Your task to perform on an android device: change the clock display to show seconds Image 0: 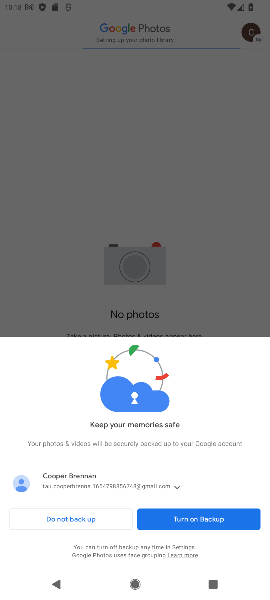
Step 0: press home button
Your task to perform on an android device: change the clock display to show seconds Image 1: 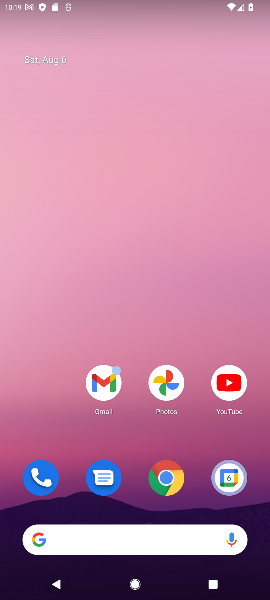
Step 1: drag from (144, 497) to (179, 30)
Your task to perform on an android device: change the clock display to show seconds Image 2: 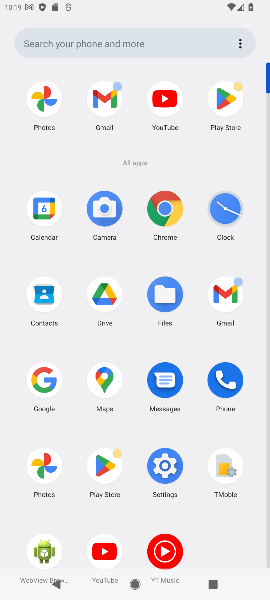
Step 2: click (223, 211)
Your task to perform on an android device: change the clock display to show seconds Image 3: 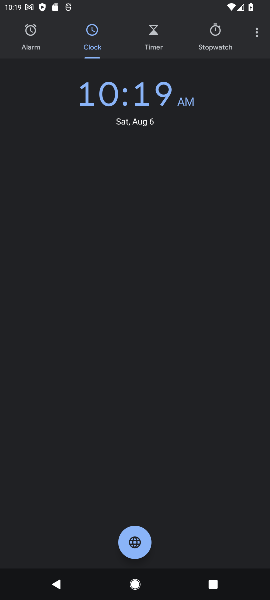
Step 3: click (256, 30)
Your task to perform on an android device: change the clock display to show seconds Image 4: 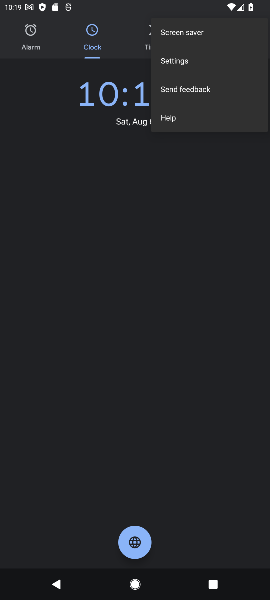
Step 4: click (189, 64)
Your task to perform on an android device: change the clock display to show seconds Image 5: 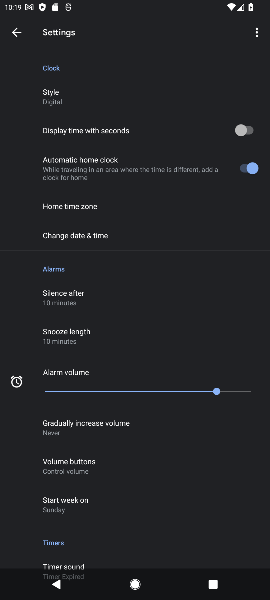
Step 5: click (253, 129)
Your task to perform on an android device: change the clock display to show seconds Image 6: 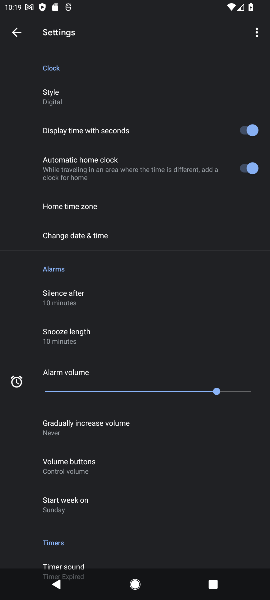
Step 6: task complete